Your task to perform on an android device: turn on bluetooth scan Image 0: 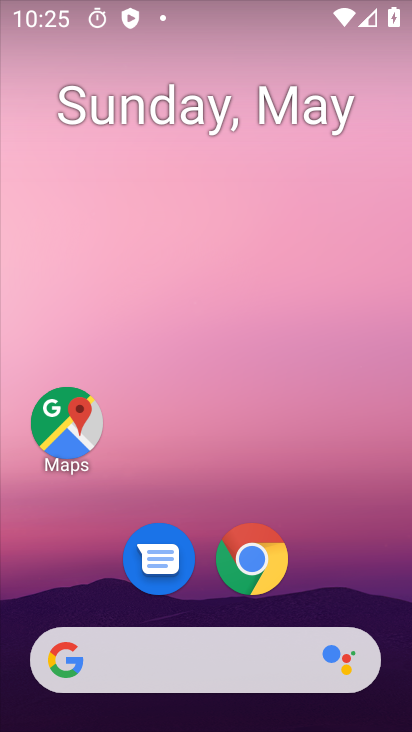
Step 0: drag from (402, 600) to (354, 54)
Your task to perform on an android device: turn on bluetooth scan Image 1: 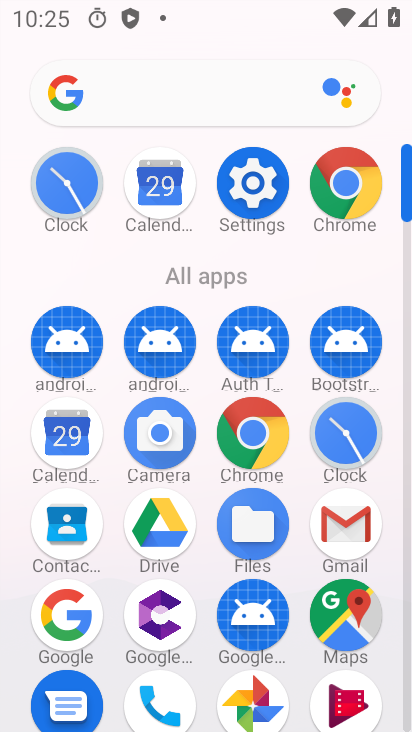
Step 1: click (264, 192)
Your task to perform on an android device: turn on bluetooth scan Image 2: 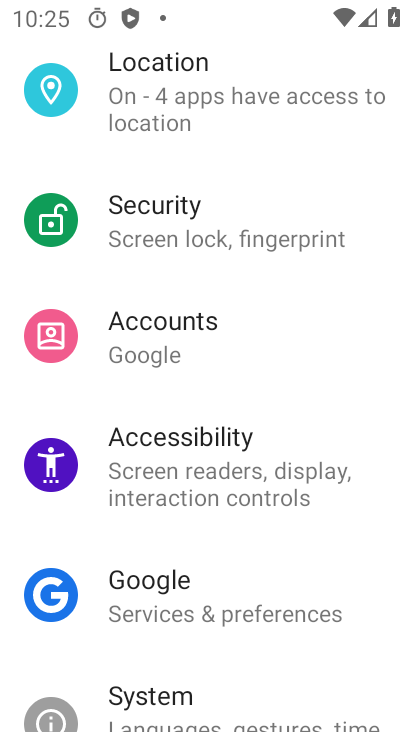
Step 2: drag from (319, 668) to (347, 318)
Your task to perform on an android device: turn on bluetooth scan Image 3: 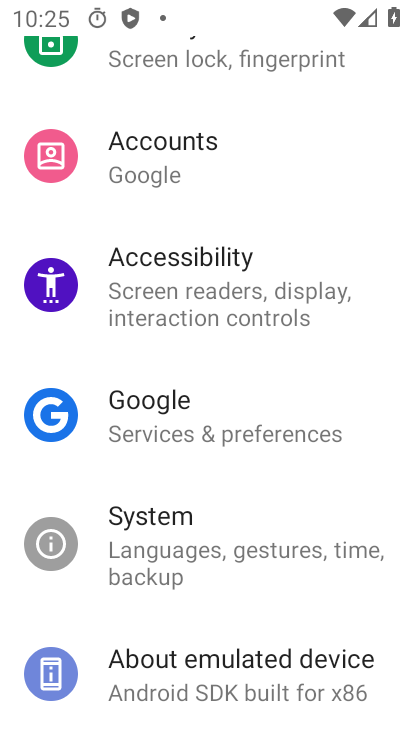
Step 3: drag from (357, 173) to (281, 658)
Your task to perform on an android device: turn on bluetooth scan Image 4: 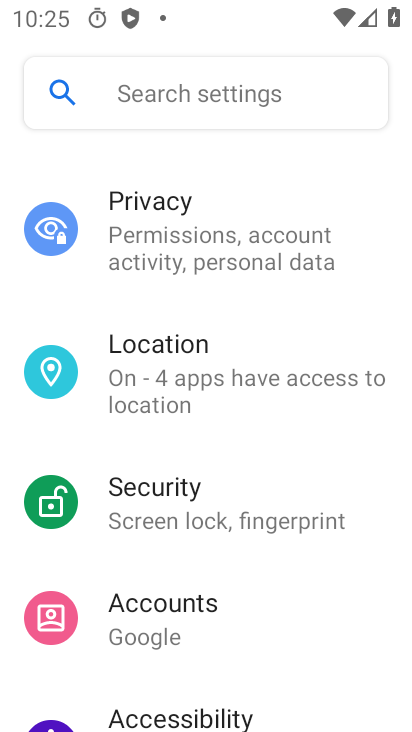
Step 4: click (244, 377)
Your task to perform on an android device: turn on bluetooth scan Image 5: 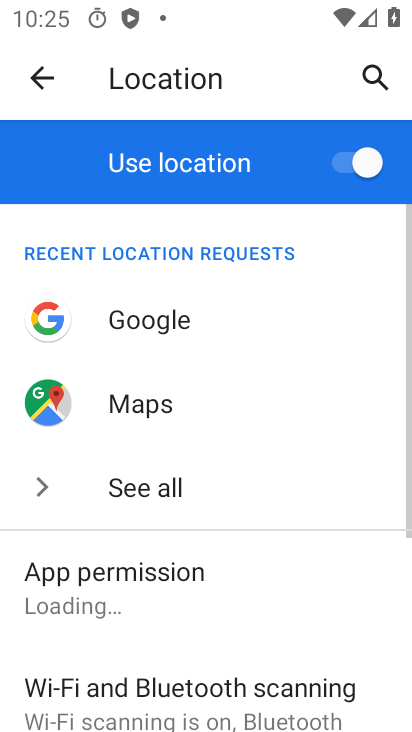
Step 5: drag from (325, 645) to (352, 292)
Your task to perform on an android device: turn on bluetooth scan Image 6: 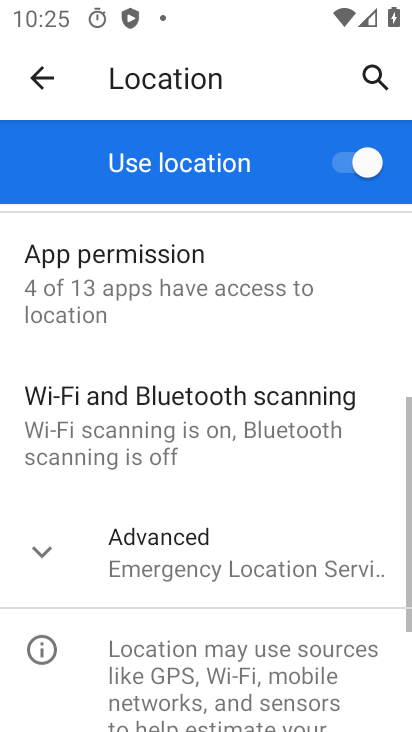
Step 6: click (280, 398)
Your task to perform on an android device: turn on bluetooth scan Image 7: 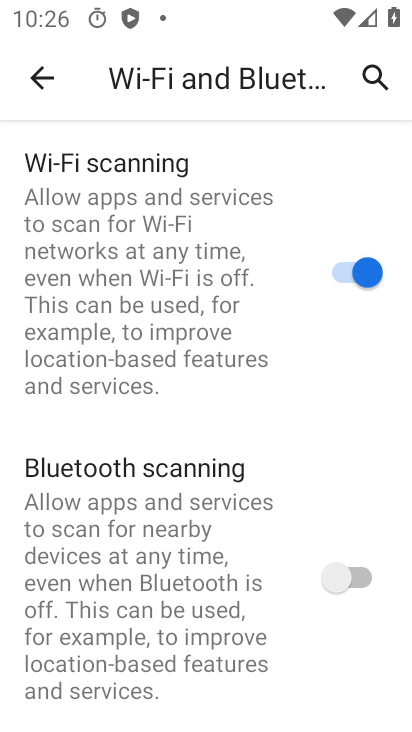
Step 7: click (362, 581)
Your task to perform on an android device: turn on bluetooth scan Image 8: 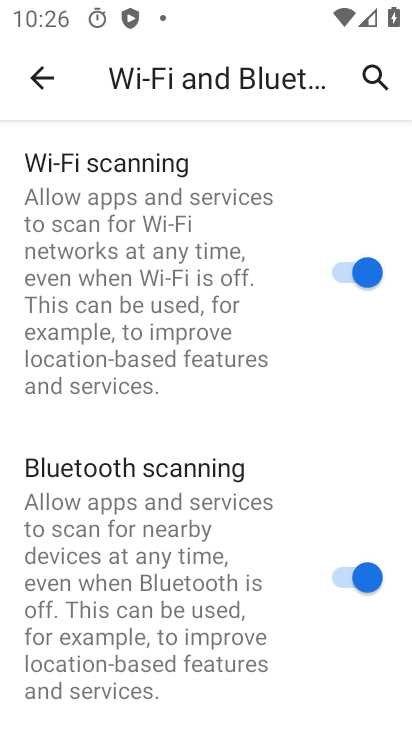
Step 8: task complete